Your task to perform on an android device: add a label to a message in the gmail app Image 0: 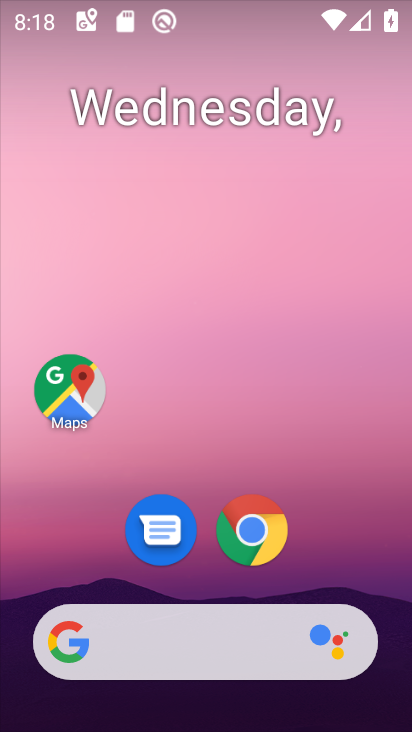
Step 0: drag from (393, 621) to (245, 60)
Your task to perform on an android device: add a label to a message in the gmail app Image 1: 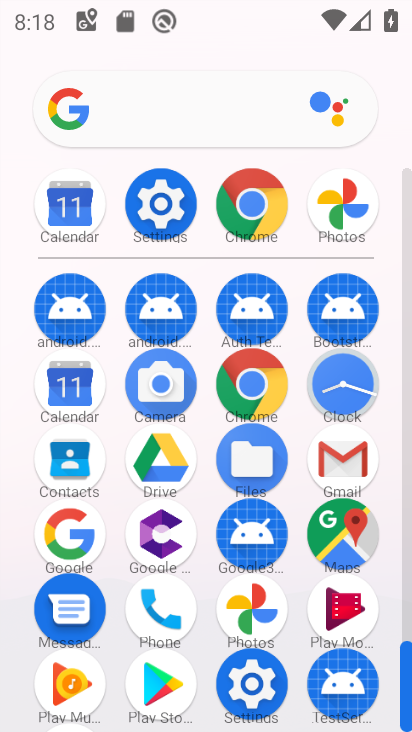
Step 1: click (325, 475)
Your task to perform on an android device: add a label to a message in the gmail app Image 2: 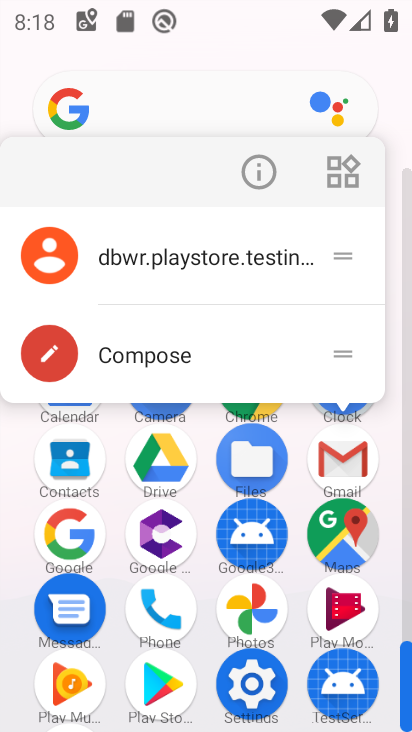
Step 2: click (329, 475)
Your task to perform on an android device: add a label to a message in the gmail app Image 3: 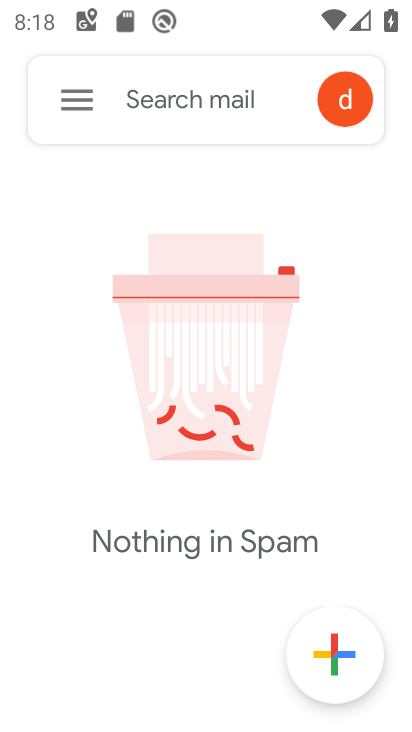
Step 3: task complete